Your task to perform on an android device: open app "Cash App" (install if not already installed) and enter user name: "submodules@gmail.com" and password: "heavenly" Image 0: 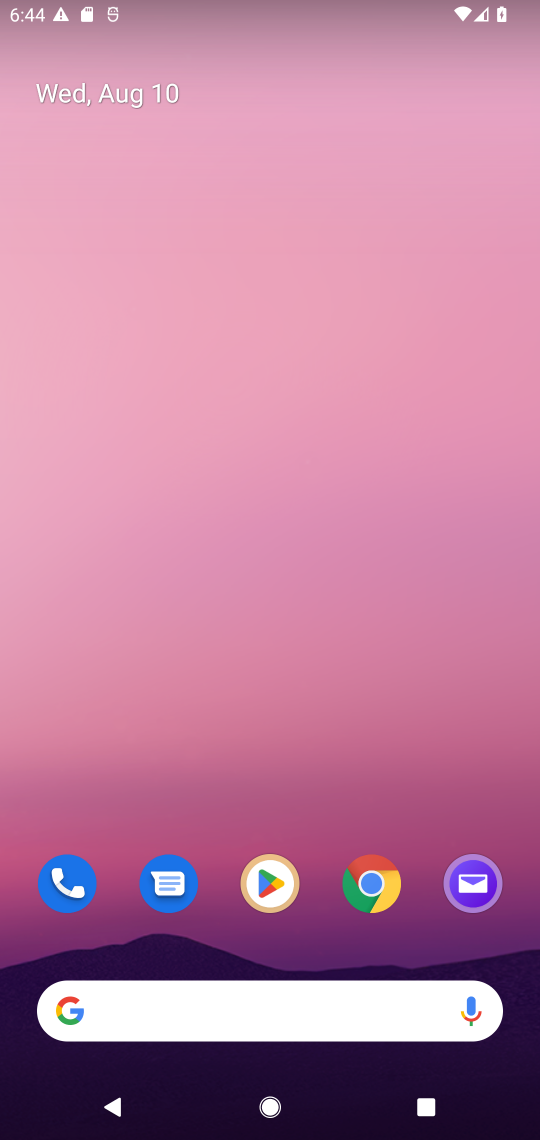
Step 0: drag from (316, 966) to (304, 250)
Your task to perform on an android device: open app "Cash App" (install if not already installed) and enter user name: "submodules@gmail.com" and password: "heavenly" Image 1: 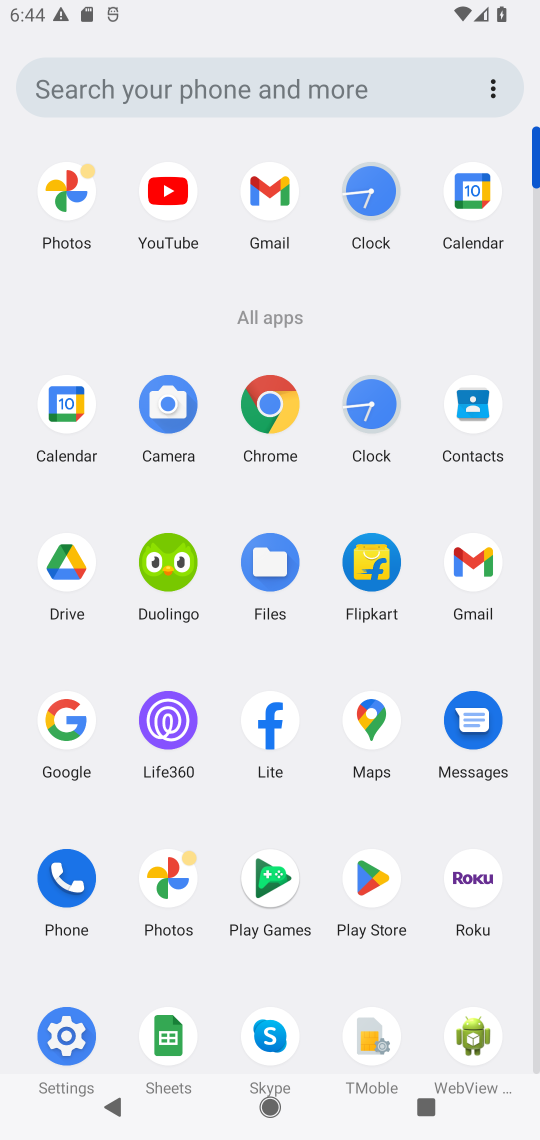
Step 1: click (371, 876)
Your task to perform on an android device: open app "Cash App" (install if not already installed) and enter user name: "submodules@gmail.com" and password: "heavenly" Image 2: 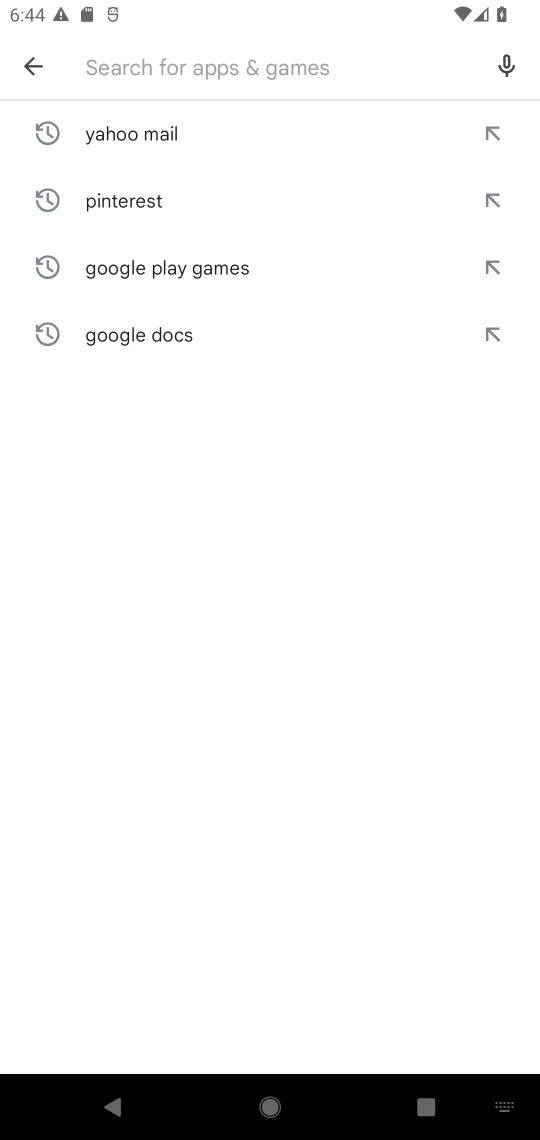
Step 2: type "Cash App"
Your task to perform on an android device: open app "Cash App" (install if not already installed) and enter user name: "submodules@gmail.com" and password: "heavenly" Image 3: 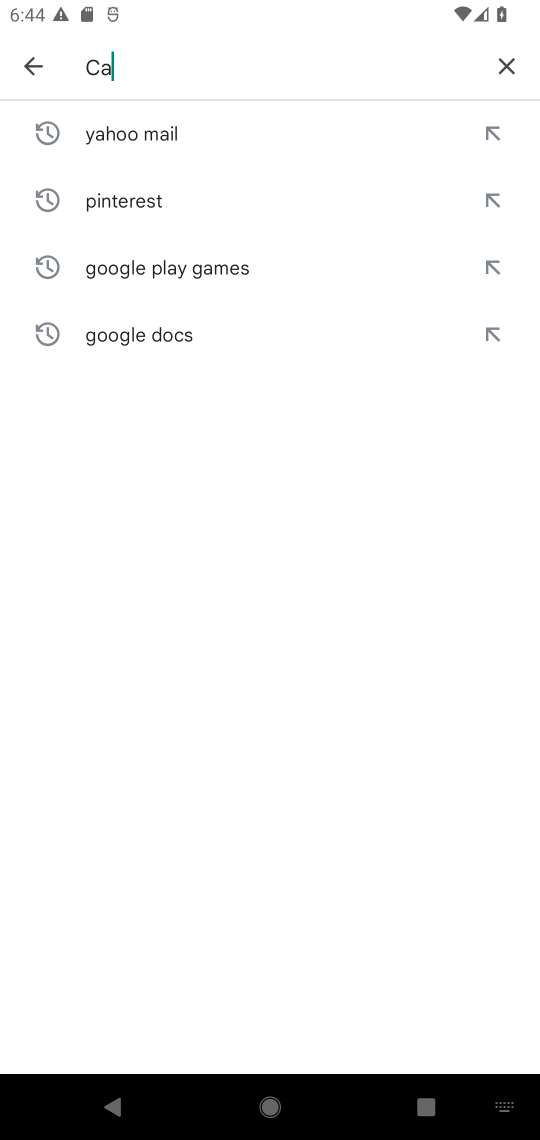
Step 3: type ""
Your task to perform on an android device: open app "Cash App" (install if not already installed) and enter user name: "submodules@gmail.com" and password: "heavenly" Image 4: 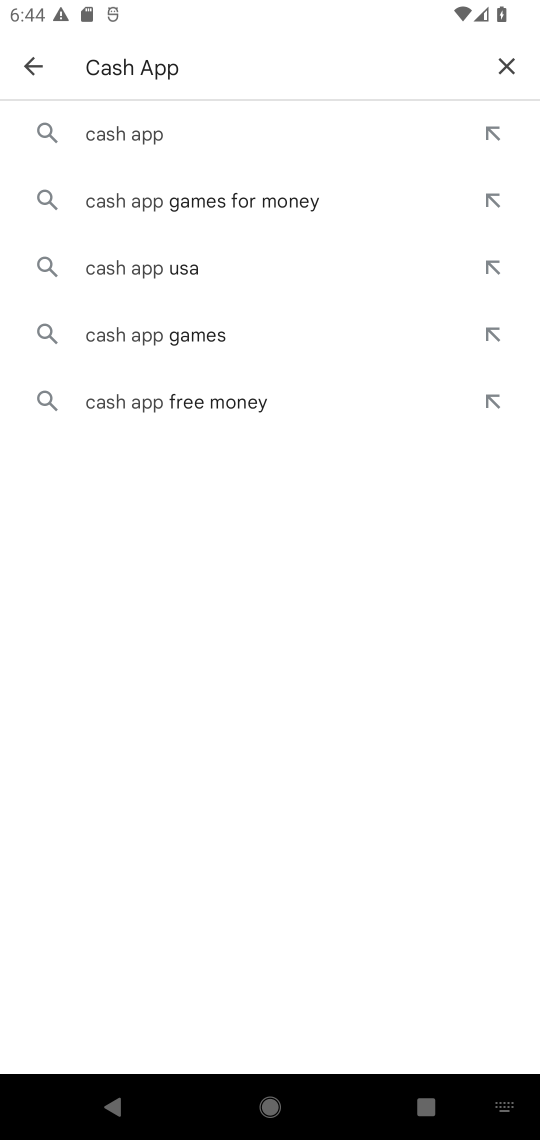
Step 4: click (135, 136)
Your task to perform on an android device: open app "Cash App" (install if not already installed) and enter user name: "submodules@gmail.com" and password: "heavenly" Image 5: 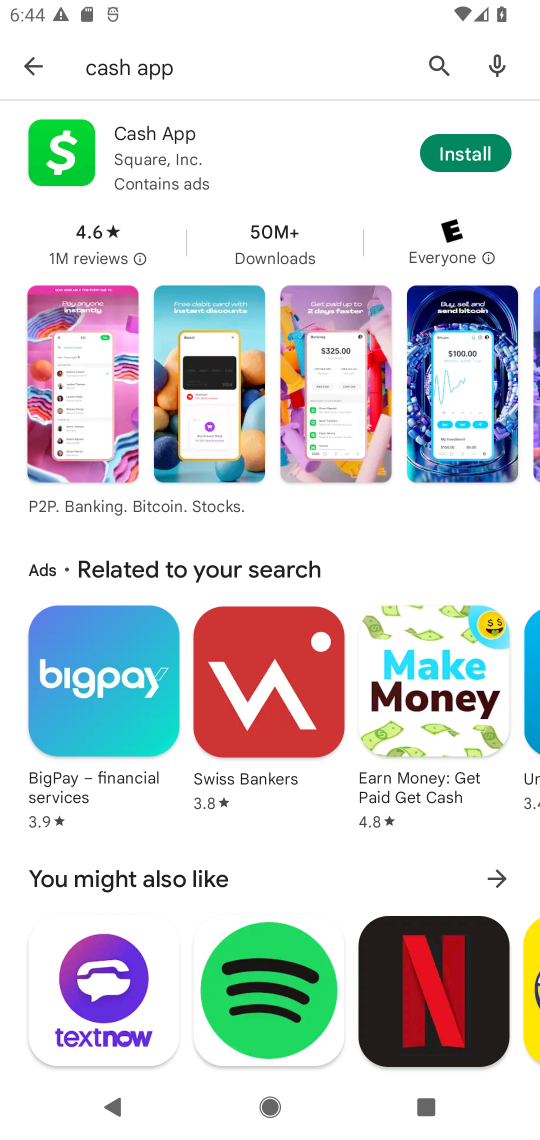
Step 5: click (467, 139)
Your task to perform on an android device: open app "Cash App" (install if not already installed) and enter user name: "submodules@gmail.com" and password: "heavenly" Image 6: 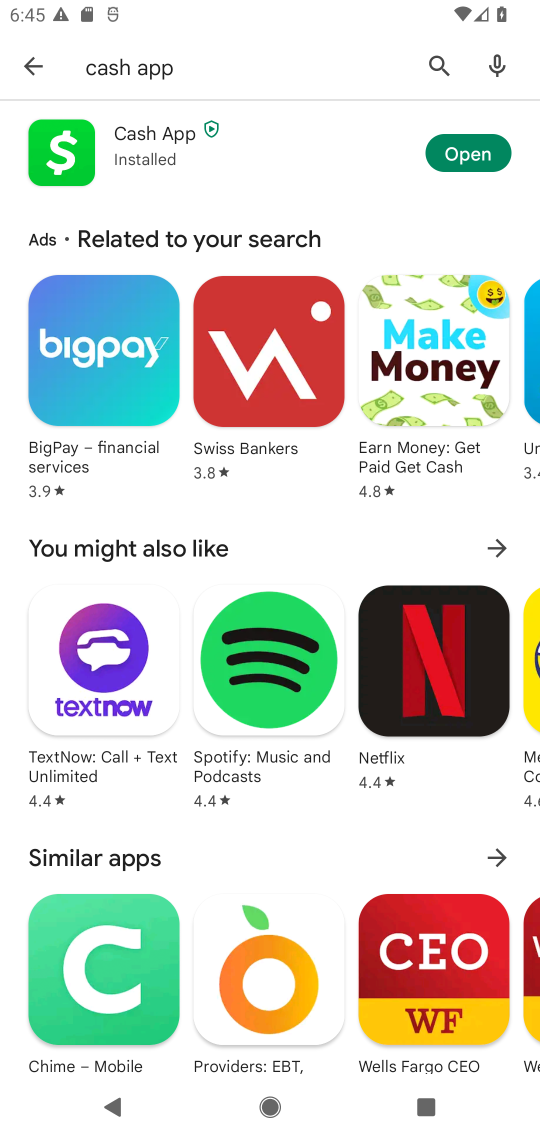
Step 6: click (472, 159)
Your task to perform on an android device: open app "Cash App" (install if not already installed) and enter user name: "submodules@gmail.com" and password: "heavenly" Image 7: 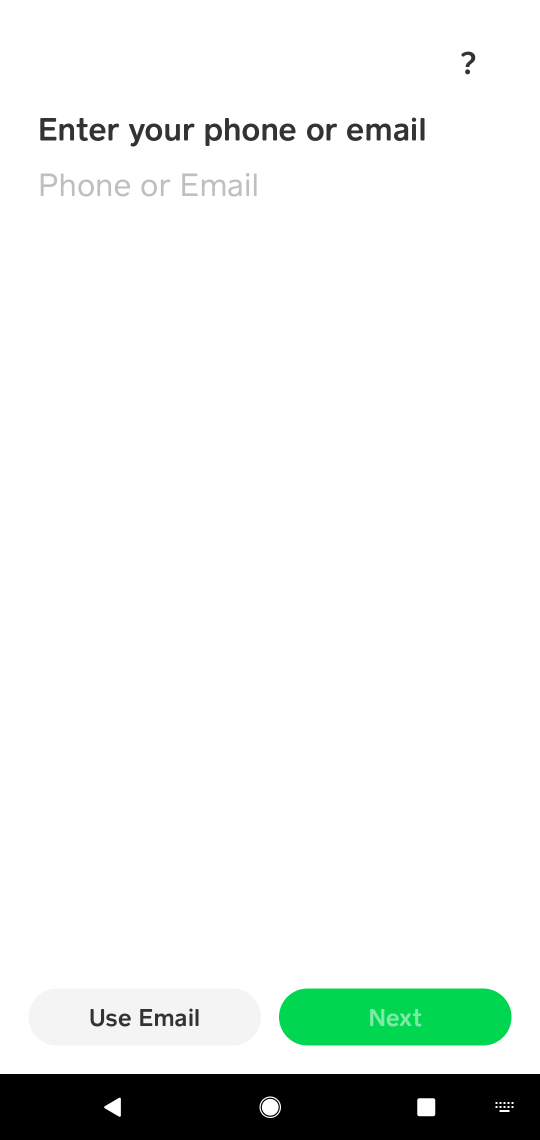
Step 7: type "submodules@gmail.com"
Your task to perform on an android device: open app "Cash App" (install if not already installed) and enter user name: "submodules@gmail.com" and password: "heavenly" Image 8: 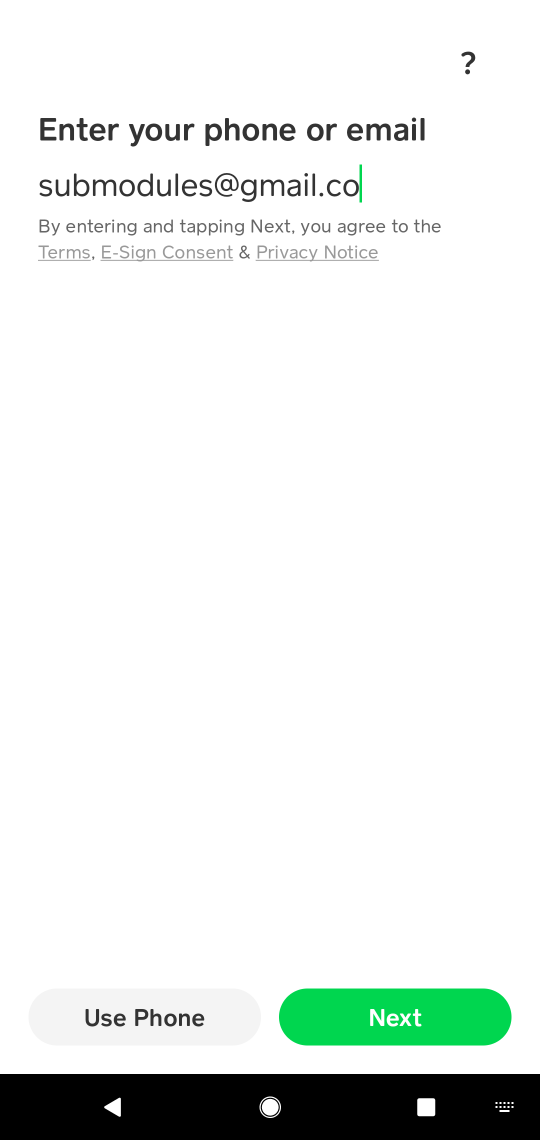
Step 8: type ""
Your task to perform on an android device: open app "Cash App" (install if not already installed) and enter user name: "submodules@gmail.com" and password: "heavenly" Image 9: 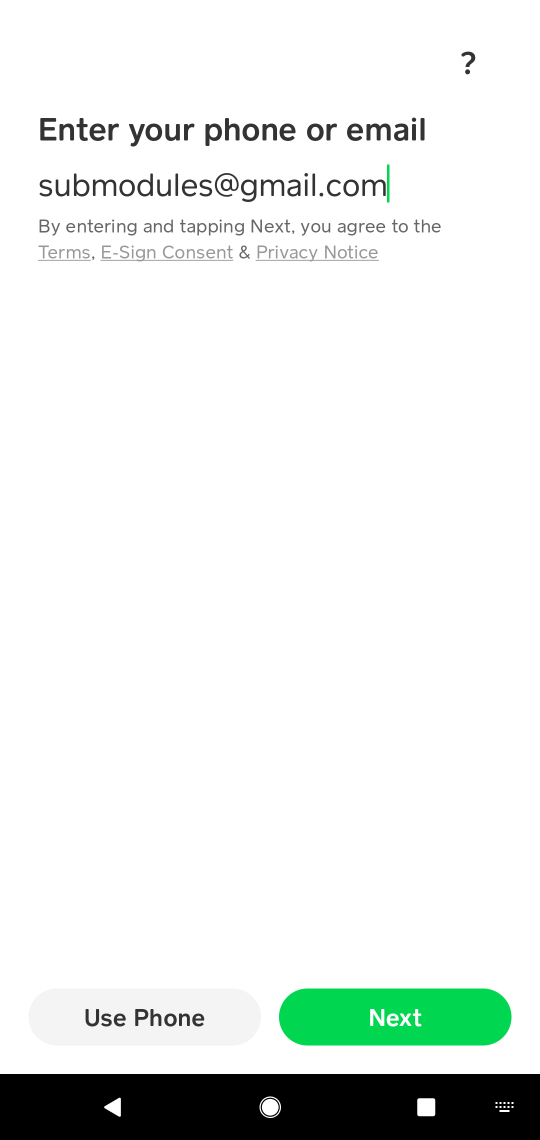
Step 9: click (466, 1007)
Your task to perform on an android device: open app "Cash App" (install if not already installed) and enter user name: "submodules@gmail.com" and password: "heavenly" Image 10: 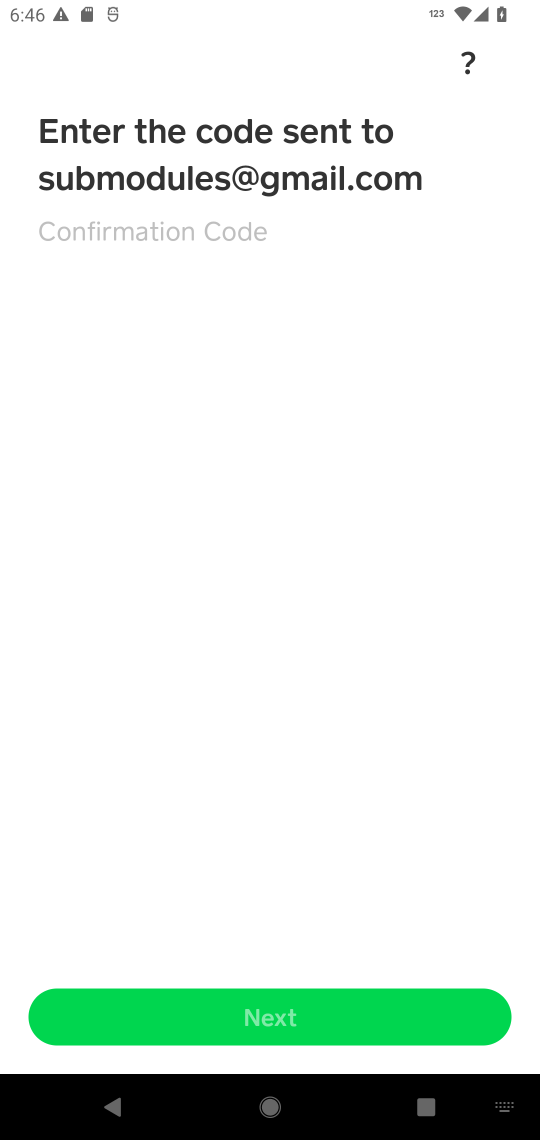
Step 10: type "heavenly"
Your task to perform on an android device: open app "Cash App" (install if not already installed) and enter user name: "submodules@gmail.com" and password: "heavenly" Image 11: 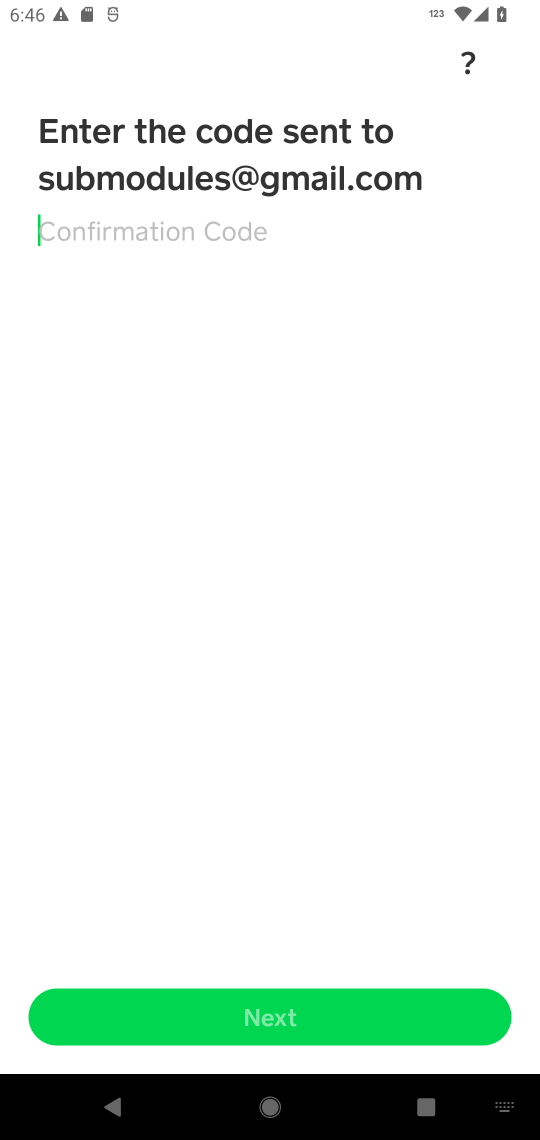
Step 11: task complete